Your task to perform on an android device: change the clock display to digital Image 0: 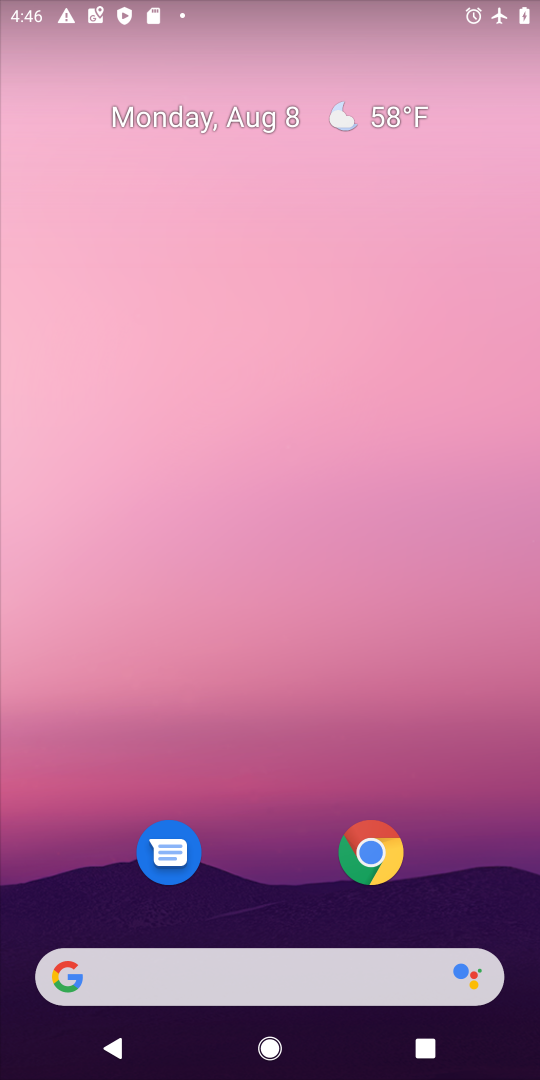
Step 0: drag from (256, 888) to (298, 141)
Your task to perform on an android device: change the clock display to digital Image 1: 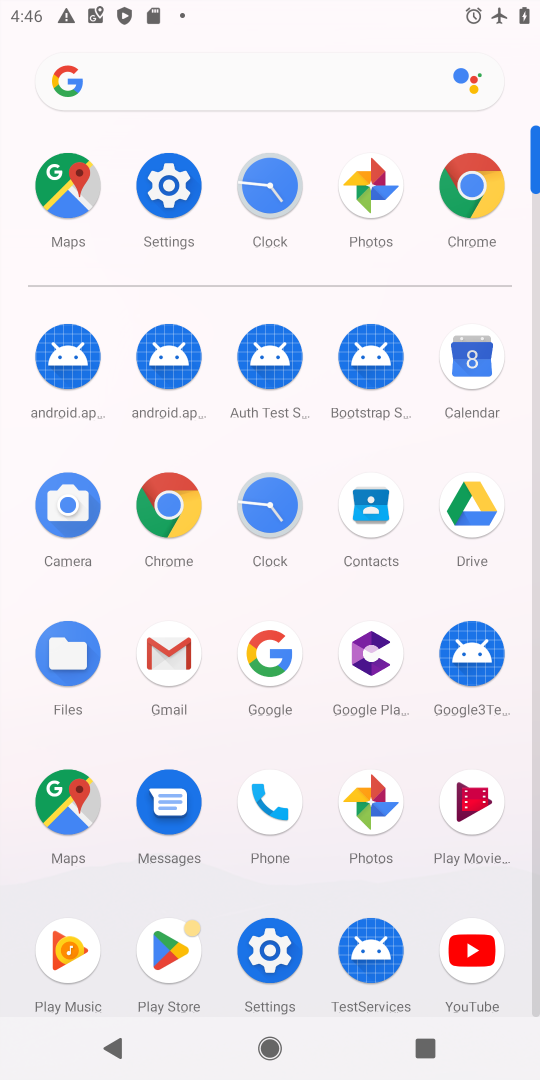
Step 1: click (264, 500)
Your task to perform on an android device: change the clock display to digital Image 2: 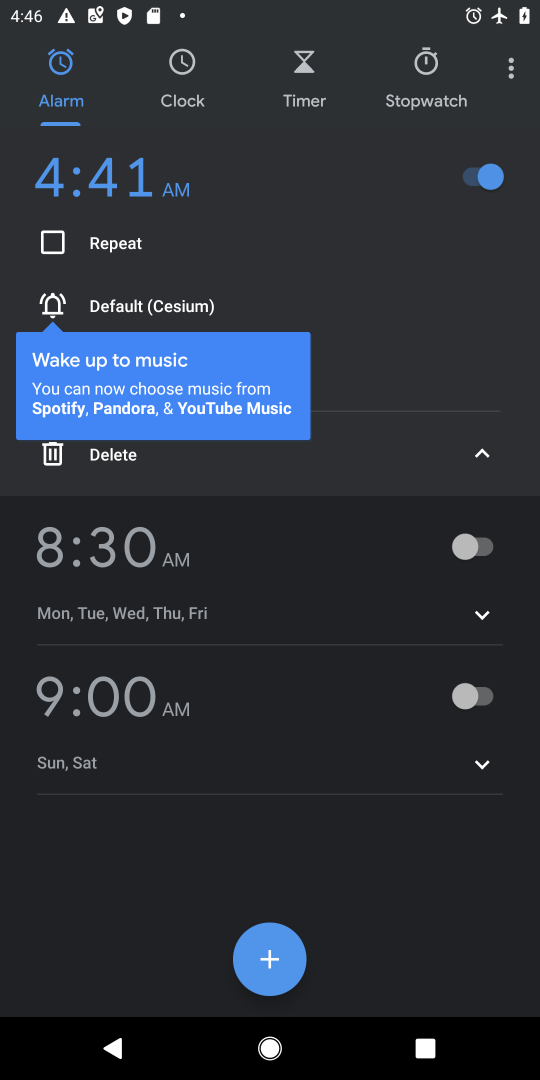
Step 2: click (515, 59)
Your task to perform on an android device: change the clock display to digital Image 3: 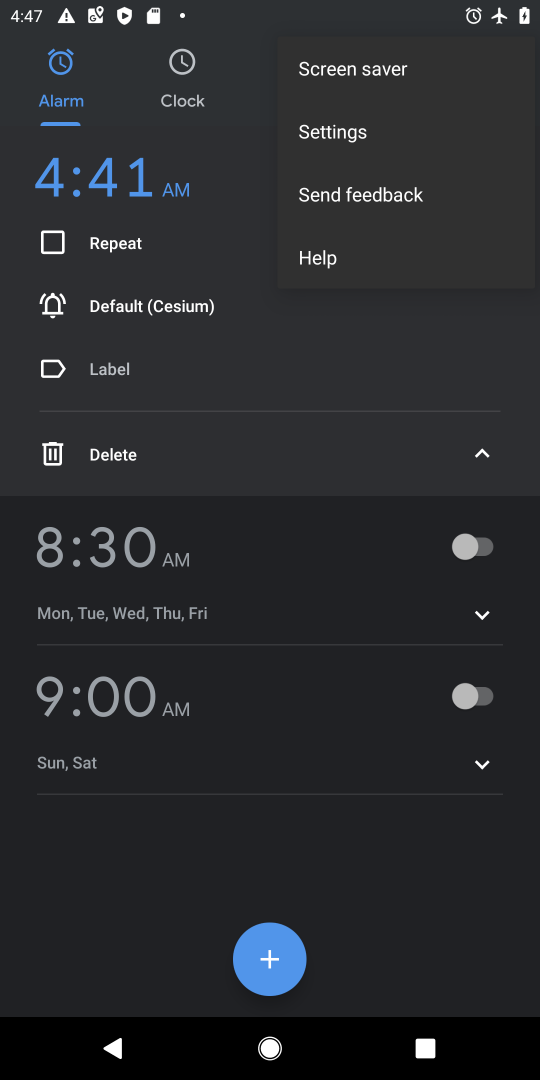
Step 3: click (392, 129)
Your task to perform on an android device: change the clock display to digital Image 4: 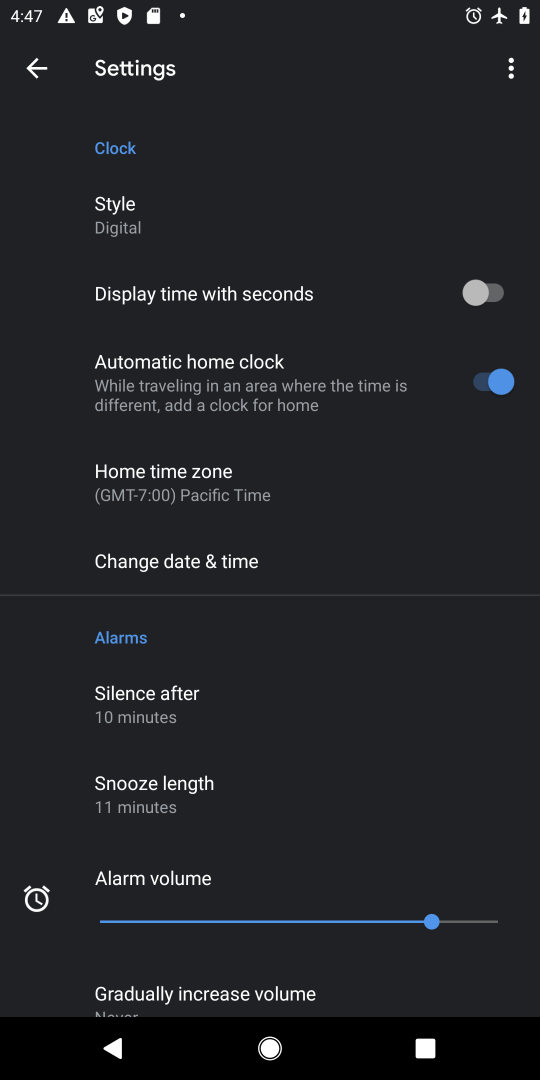
Step 4: task complete